Your task to perform on an android device: Open Chrome and go to settings Image 0: 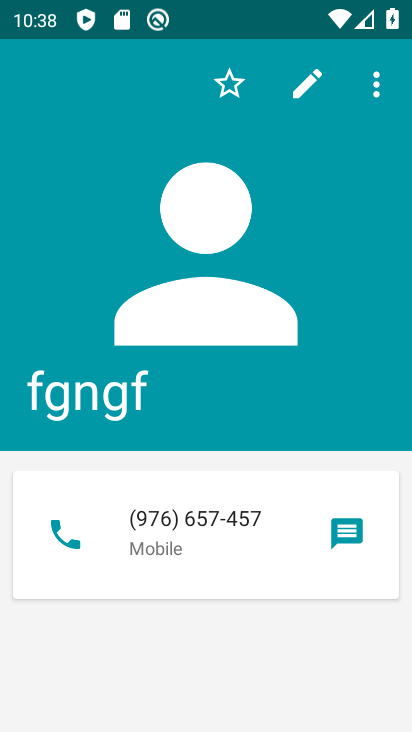
Step 0: press home button
Your task to perform on an android device: Open Chrome and go to settings Image 1: 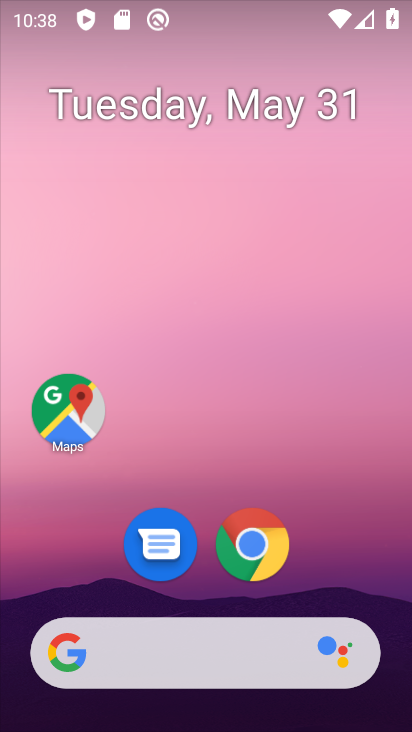
Step 1: click (239, 563)
Your task to perform on an android device: Open Chrome and go to settings Image 2: 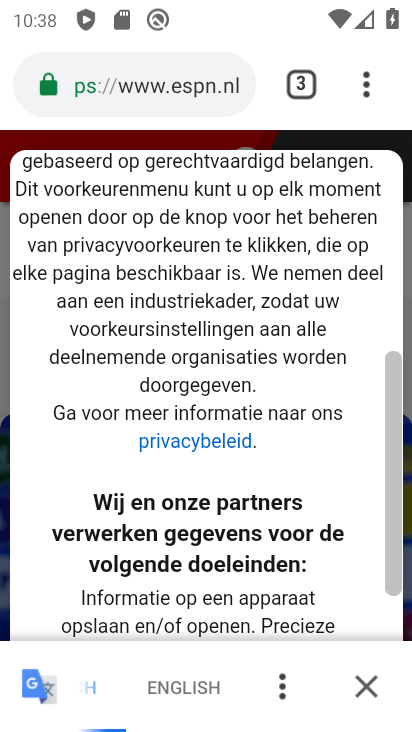
Step 2: click (364, 76)
Your task to perform on an android device: Open Chrome and go to settings Image 3: 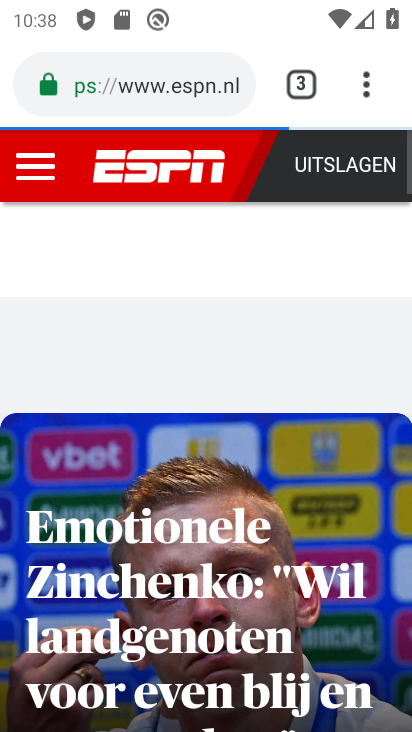
Step 3: drag from (364, 82) to (147, 598)
Your task to perform on an android device: Open Chrome and go to settings Image 4: 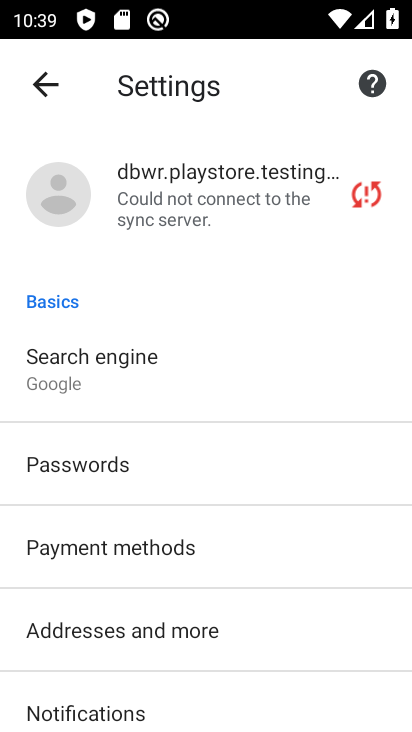
Step 4: drag from (168, 641) to (208, 287)
Your task to perform on an android device: Open Chrome and go to settings Image 5: 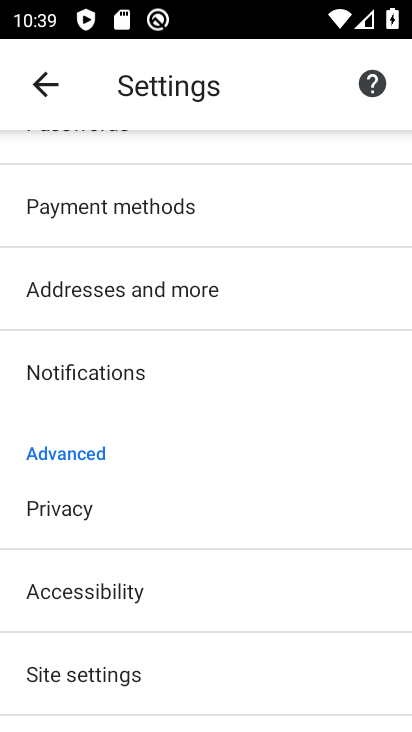
Step 5: press home button
Your task to perform on an android device: Open Chrome and go to settings Image 6: 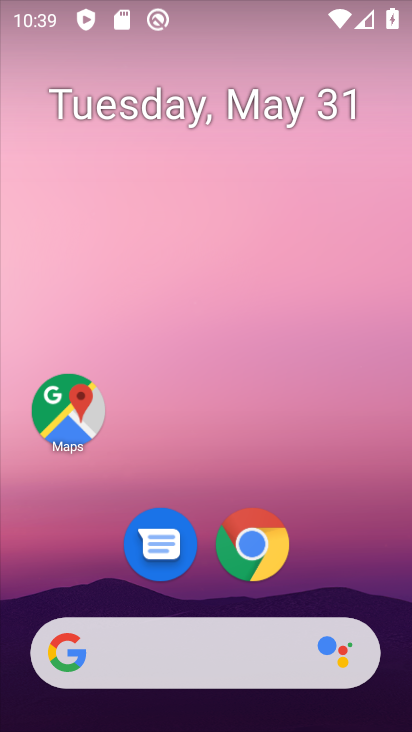
Step 6: click (244, 515)
Your task to perform on an android device: Open Chrome and go to settings Image 7: 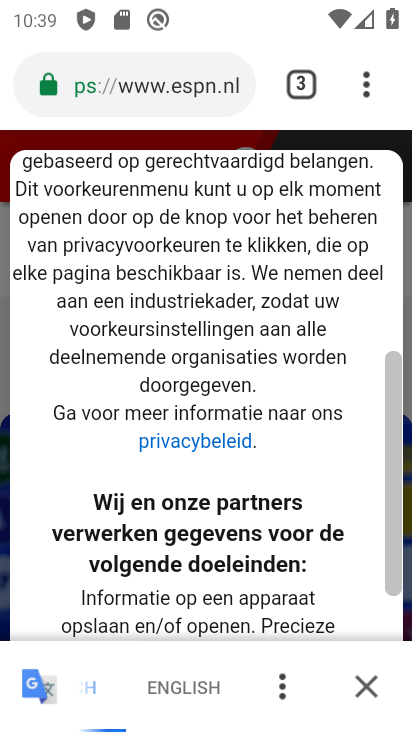
Step 7: task complete